Your task to perform on an android device: Open the stopwatch Image 0: 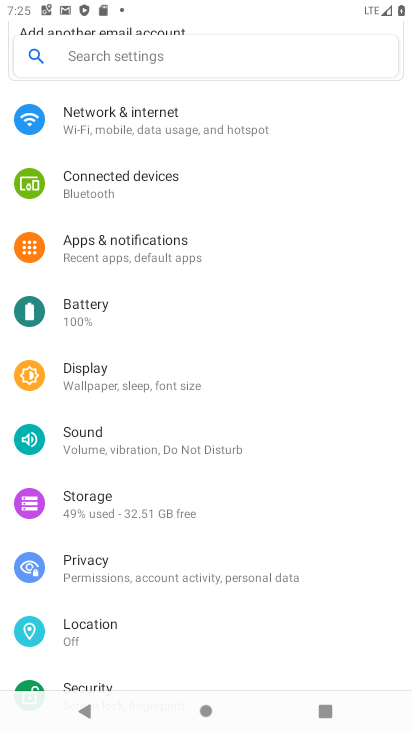
Step 0: press home button
Your task to perform on an android device: Open the stopwatch Image 1: 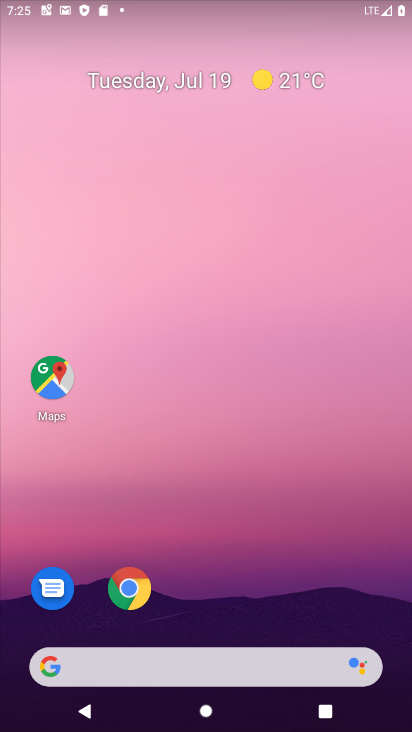
Step 1: drag from (270, 564) to (302, 73)
Your task to perform on an android device: Open the stopwatch Image 2: 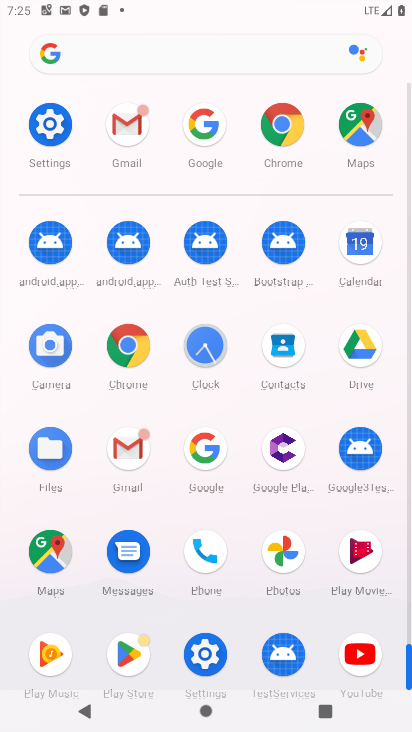
Step 2: click (212, 352)
Your task to perform on an android device: Open the stopwatch Image 3: 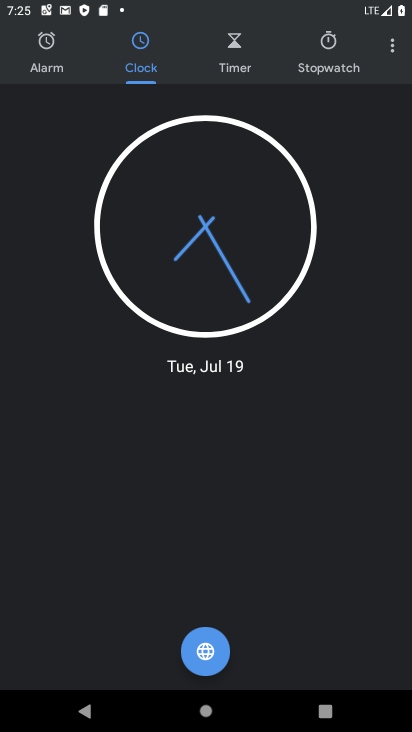
Step 3: click (392, 40)
Your task to perform on an android device: Open the stopwatch Image 4: 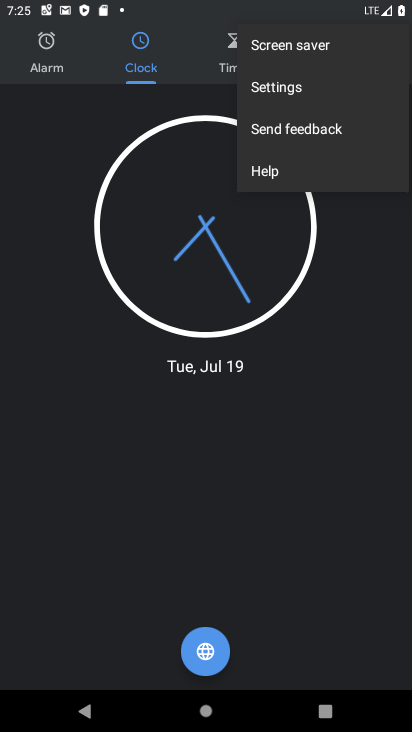
Step 4: click (360, 341)
Your task to perform on an android device: Open the stopwatch Image 5: 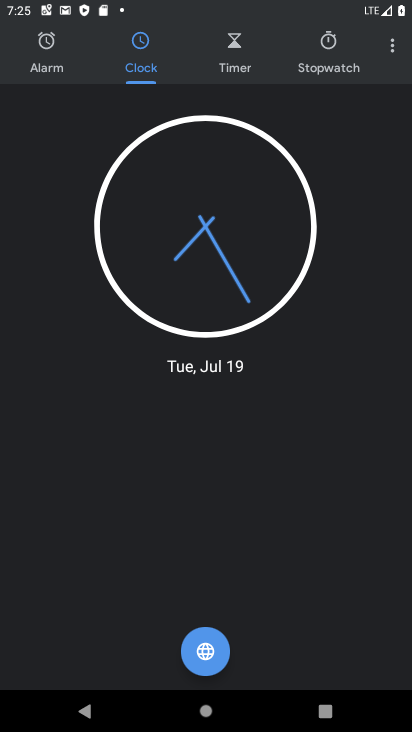
Step 5: click (321, 65)
Your task to perform on an android device: Open the stopwatch Image 6: 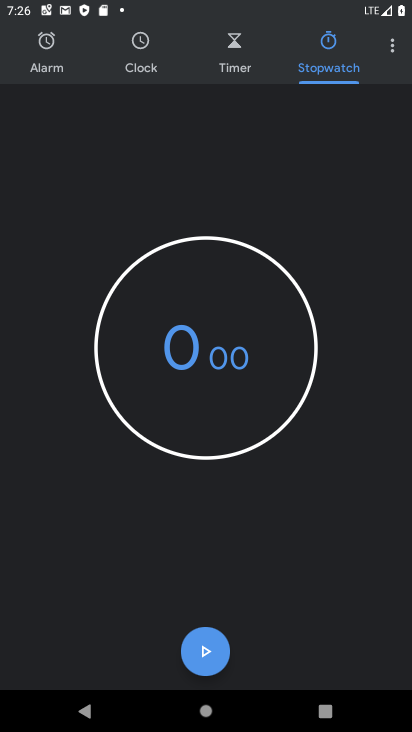
Step 6: click (202, 650)
Your task to perform on an android device: Open the stopwatch Image 7: 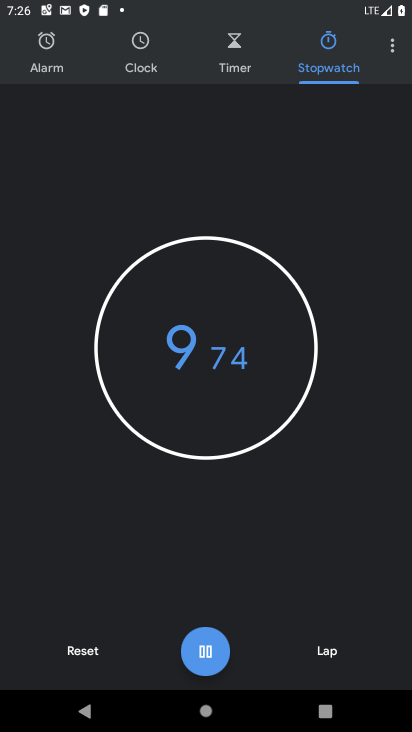
Step 7: task complete